Your task to perform on an android device: uninstall "Spotify: Music and Podcasts" Image 0: 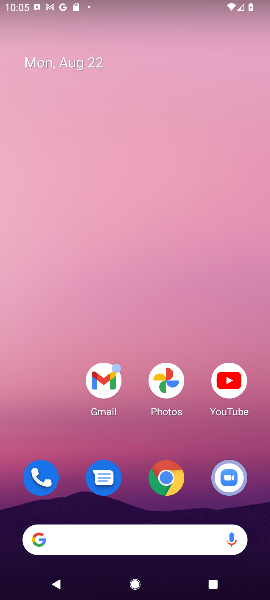
Step 0: drag from (126, 514) to (128, 51)
Your task to perform on an android device: uninstall "Spotify: Music and Podcasts" Image 1: 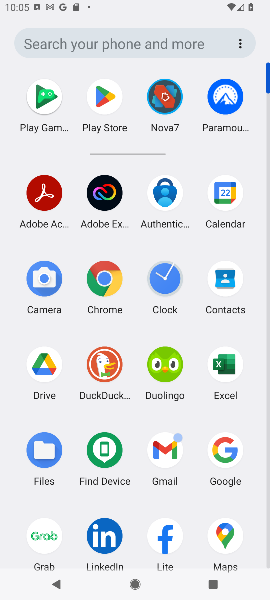
Step 1: drag from (141, 504) to (169, 174)
Your task to perform on an android device: uninstall "Spotify: Music and Podcasts" Image 2: 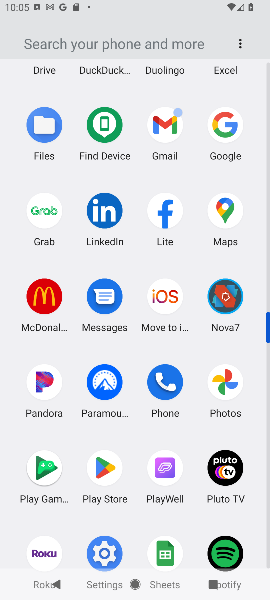
Step 2: drag from (135, 527) to (154, 312)
Your task to perform on an android device: uninstall "Spotify: Music and Podcasts" Image 3: 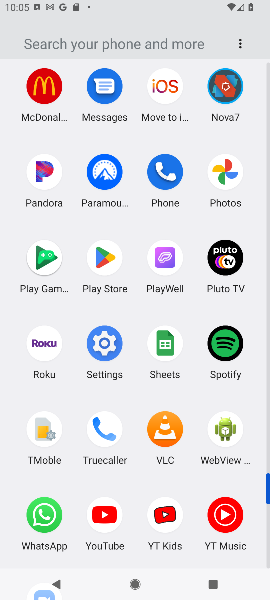
Step 3: click (109, 268)
Your task to perform on an android device: uninstall "Spotify: Music and Podcasts" Image 4: 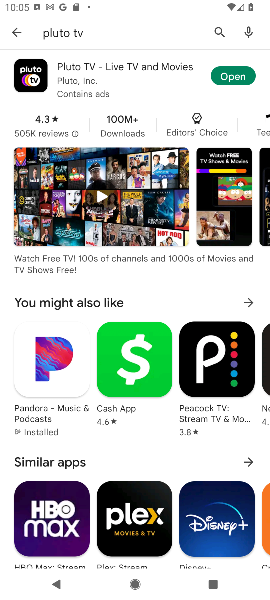
Step 4: click (209, 72)
Your task to perform on an android device: uninstall "Spotify: Music and Podcasts" Image 5: 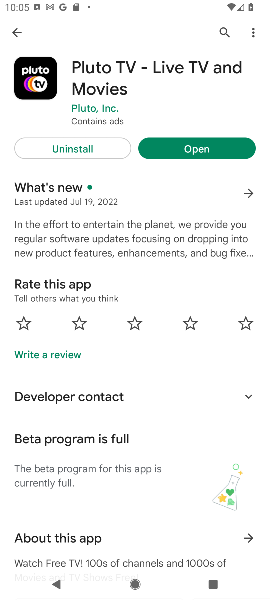
Step 5: click (226, 28)
Your task to perform on an android device: uninstall "Spotify: Music and Podcasts" Image 6: 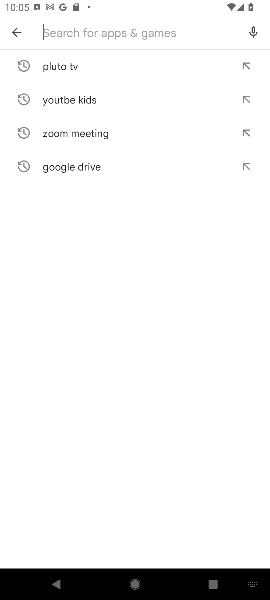
Step 6: type "grab"
Your task to perform on an android device: uninstall "Spotify: Music and Podcasts" Image 7: 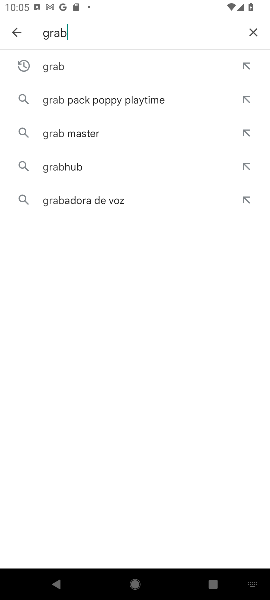
Step 7: click (153, 70)
Your task to perform on an android device: uninstall "Spotify: Music and Podcasts" Image 8: 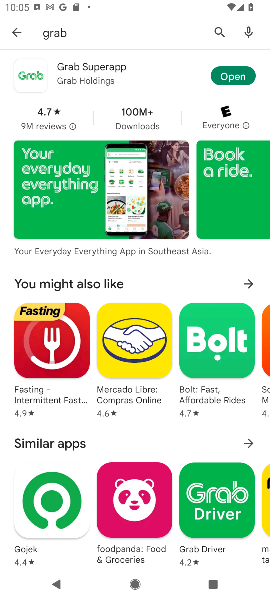
Step 8: click (236, 88)
Your task to perform on an android device: uninstall "Spotify: Music and Podcasts" Image 9: 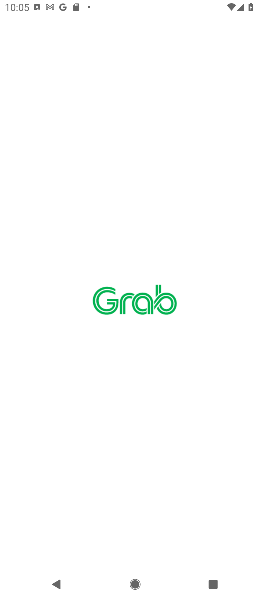
Step 9: task complete